Your task to perform on an android device: stop showing notifications on the lock screen Image 0: 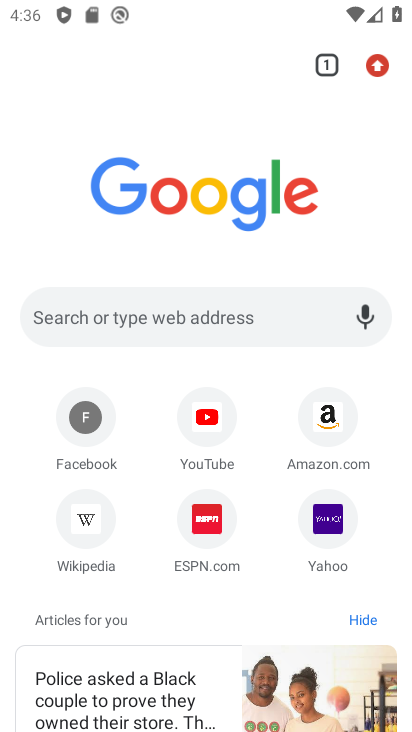
Step 0: press home button
Your task to perform on an android device: stop showing notifications on the lock screen Image 1: 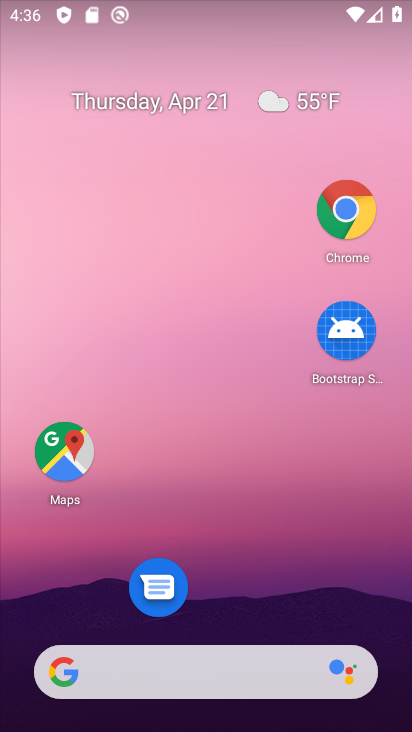
Step 1: drag from (340, 517) to (347, 29)
Your task to perform on an android device: stop showing notifications on the lock screen Image 2: 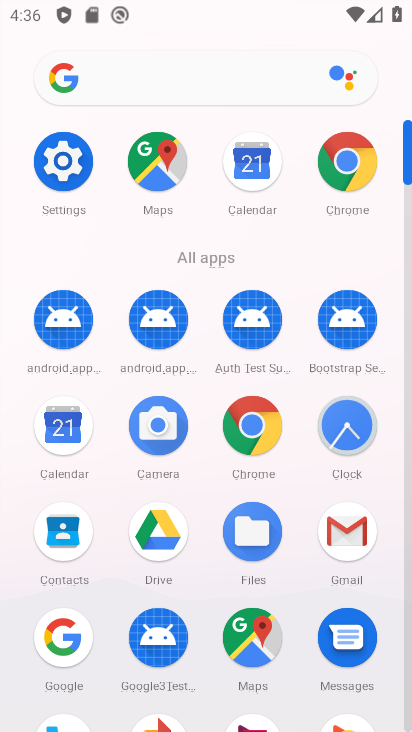
Step 2: click (72, 154)
Your task to perform on an android device: stop showing notifications on the lock screen Image 3: 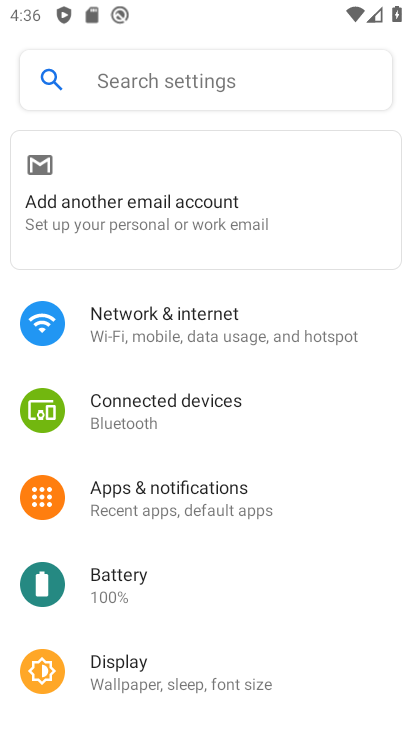
Step 3: drag from (355, 565) to (377, 161)
Your task to perform on an android device: stop showing notifications on the lock screen Image 4: 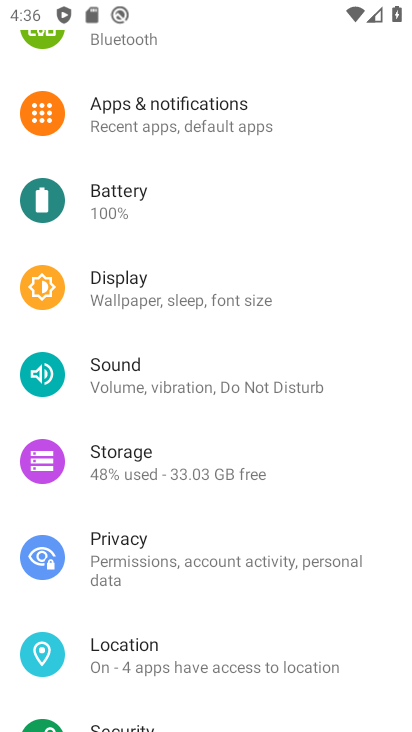
Step 4: click (212, 113)
Your task to perform on an android device: stop showing notifications on the lock screen Image 5: 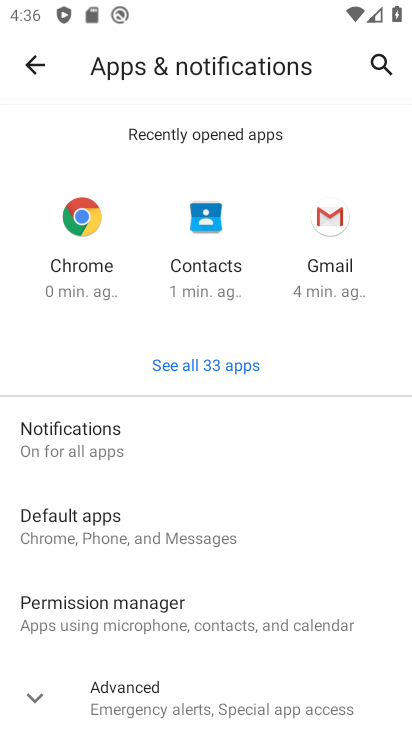
Step 5: click (82, 422)
Your task to perform on an android device: stop showing notifications on the lock screen Image 6: 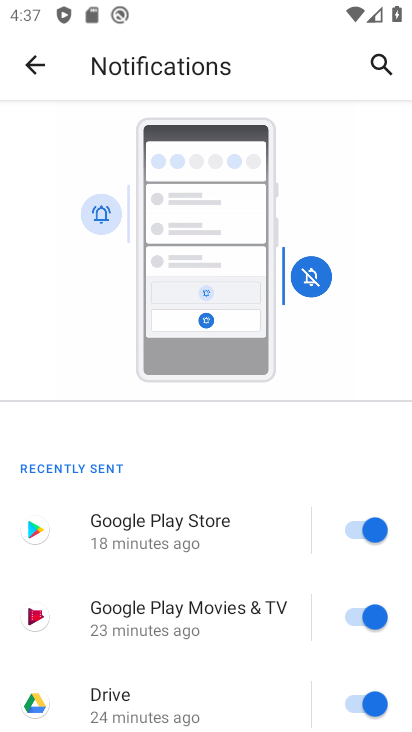
Step 6: drag from (275, 494) to (345, 151)
Your task to perform on an android device: stop showing notifications on the lock screen Image 7: 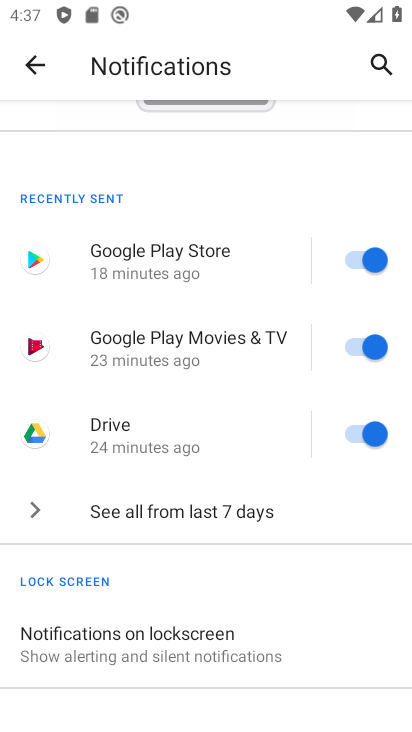
Step 7: click (183, 633)
Your task to perform on an android device: stop showing notifications on the lock screen Image 8: 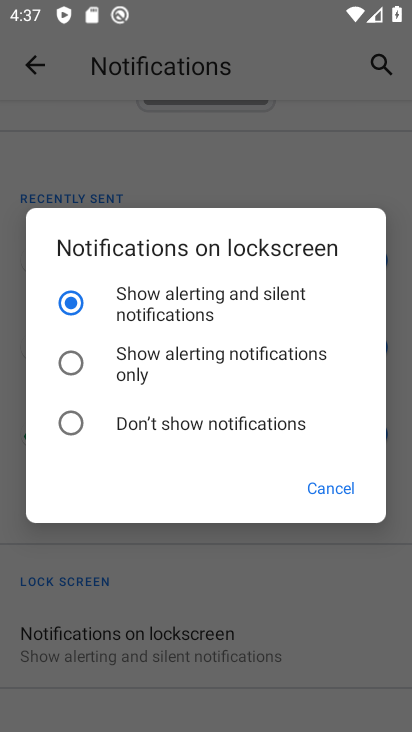
Step 8: click (136, 370)
Your task to perform on an android device: stop showing notifications on the lock screen Image 9: 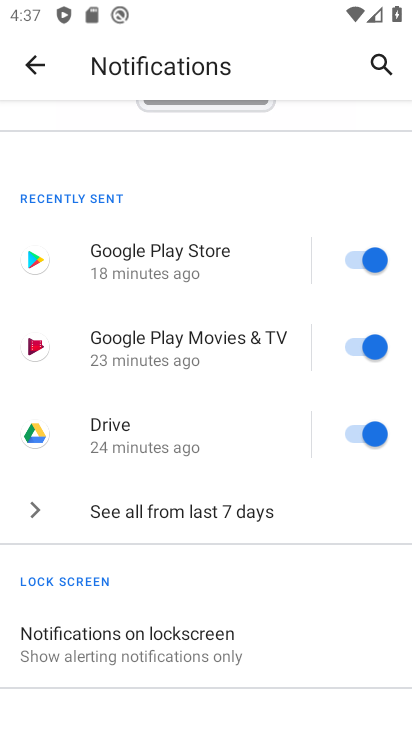
Step 9: click (129, 648)
Your task to perform on an android device: stop showing notifications on the lock screen Image 10: 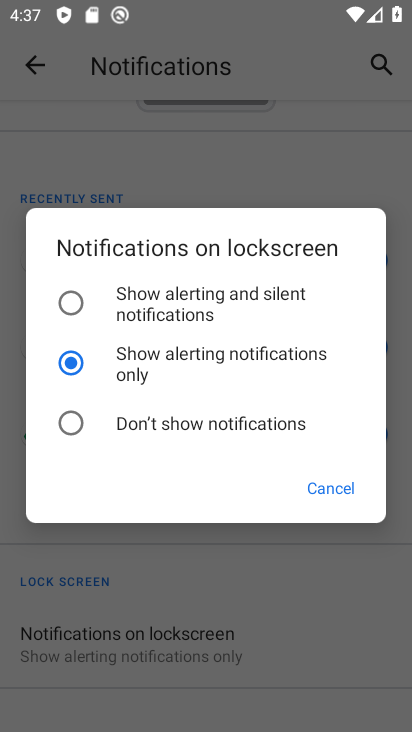
Step 10: click (143, 425)
Your task to perform on an android device: stop showing notifications on the lock screen Image 11: 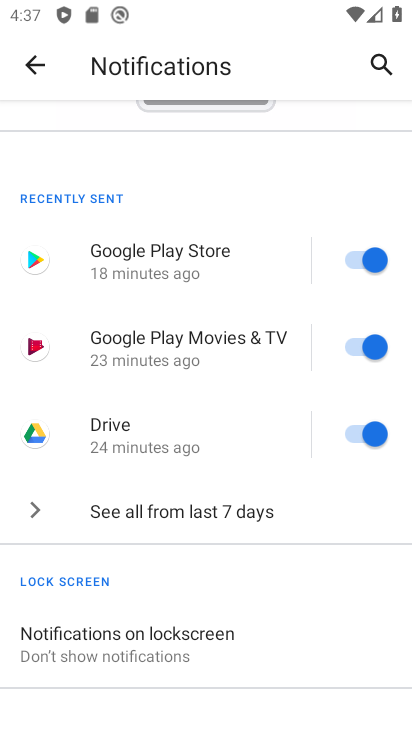
Step 11: task complete